Your task to perform on an android device: Search for the best selling books on Target. Image 0: 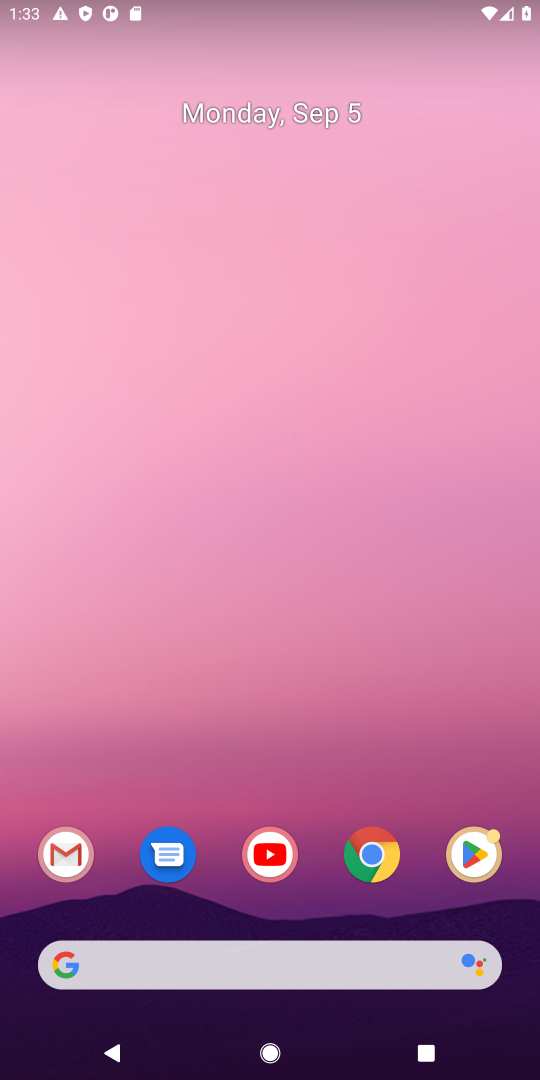
Step 0: click (335, 965)
Your task to perform on an android device: Search for the best selling books on Target. Image 1: 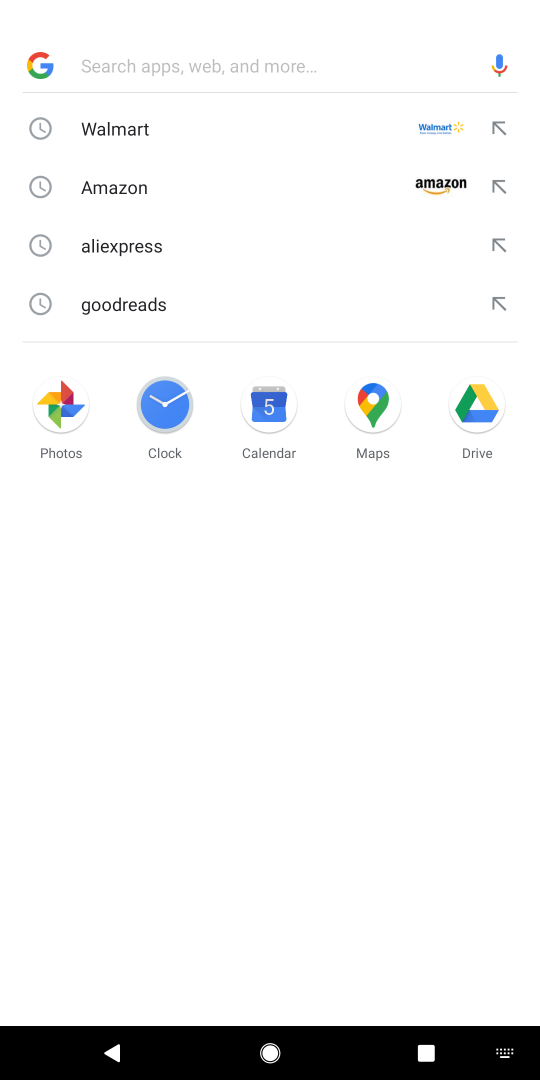
Step 1: type "target"
Your task to perform on an android device: Search for the best selling books on Target. Image 2: 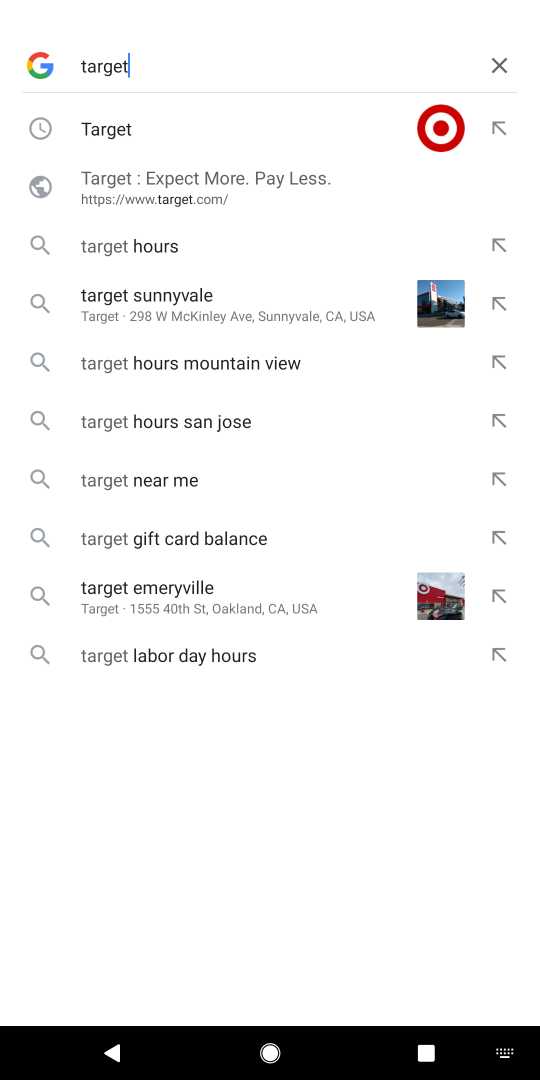
Step 2: press enter
Your task to perform on an android device: Search for the best selling books on Target. Image 3: 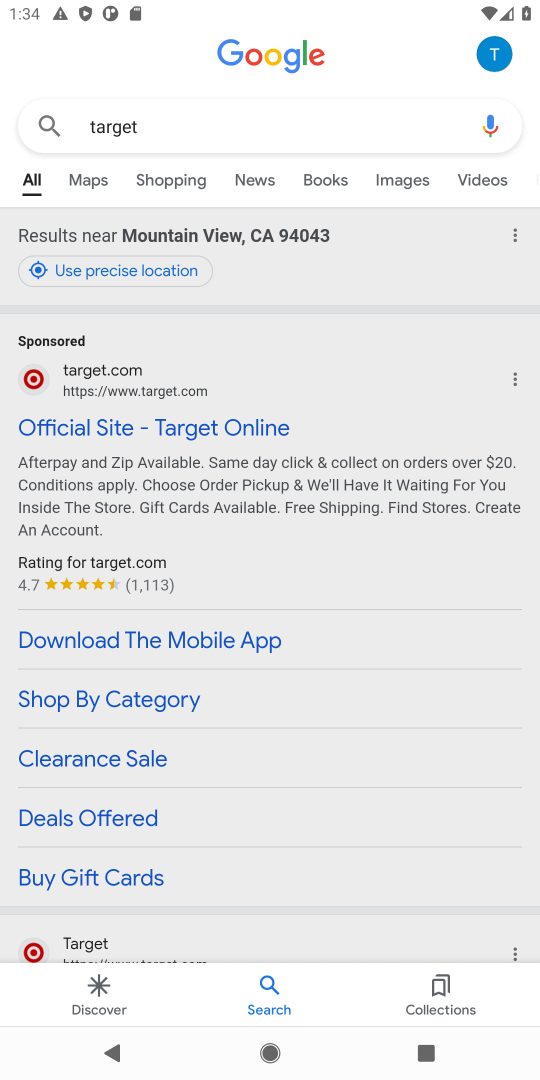
Step 3: click (237, 433)
Your task to perform on an android device: Search for the best selling books on Target. Image 4: 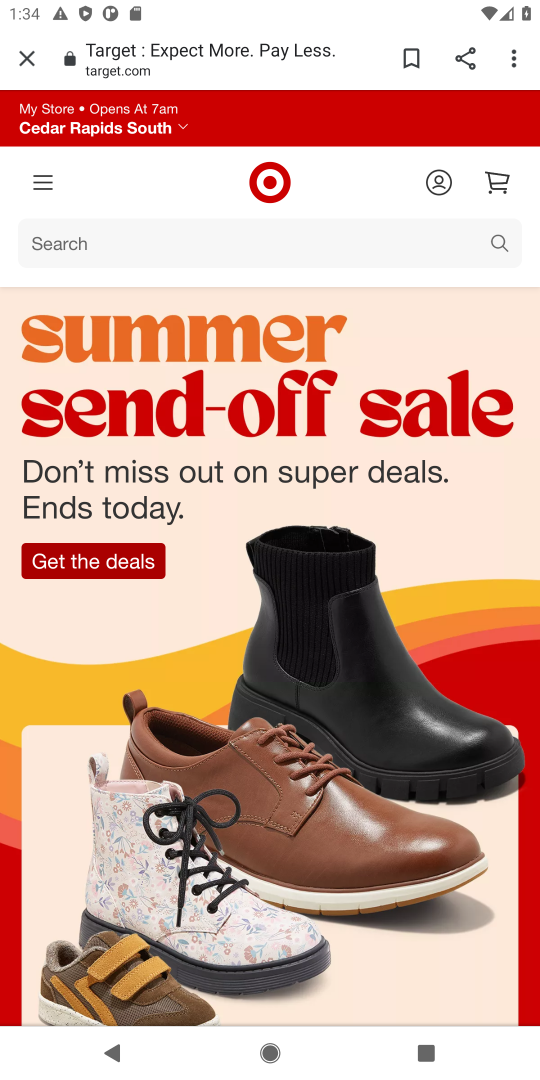
Step 4: click (220, 244)
Your task to perform on an android device: Search for the best selling books on Target. Image 5: 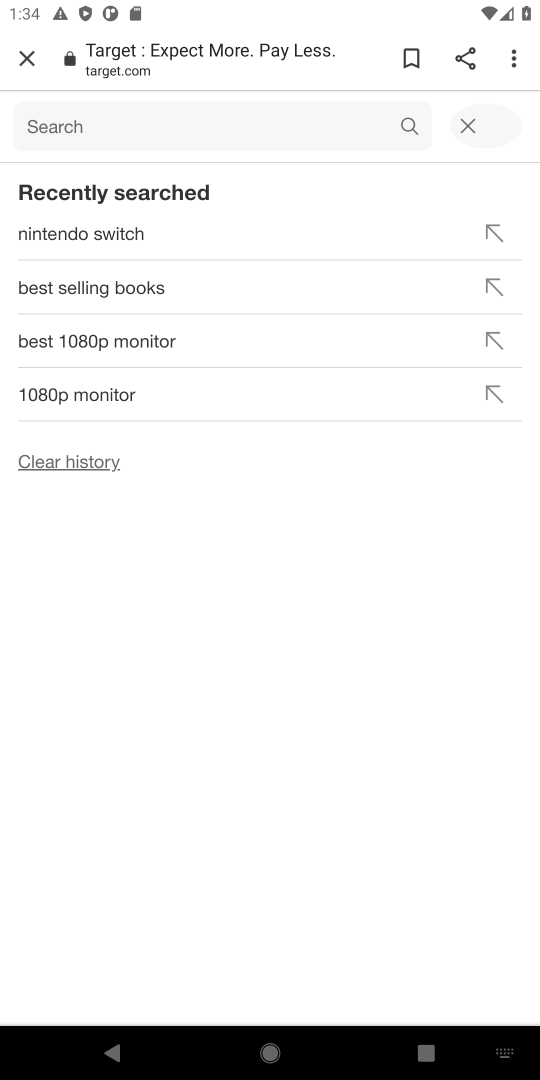
Step 5: type "best selling books"
Your task to perform on an android device: Search for the best selling books on Target. Image 6: 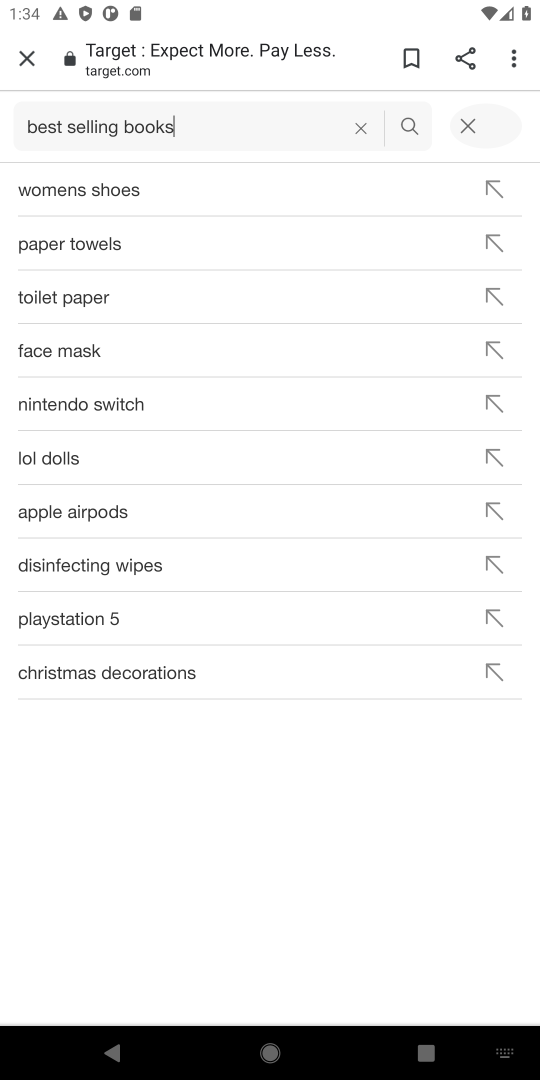
Step 6: press enter
Your task to perform on an android device: Search for the best selling books on Target. Image 7: 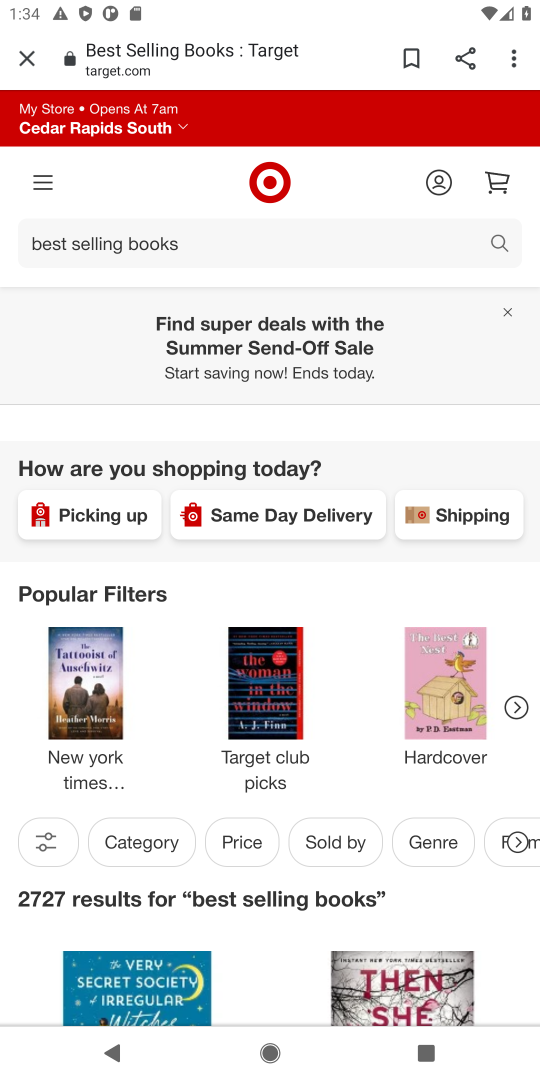
Step 7: task complete